Your task to perform on an android device: open the mobile data screen to see how much data has been used Image 0: 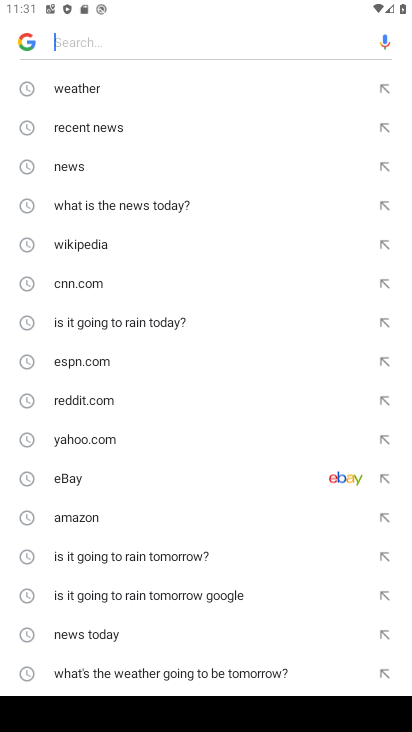
Step 0: press home button
Your task to perform on an android device: open the mobile data screen to see how much data has been used Image 1: 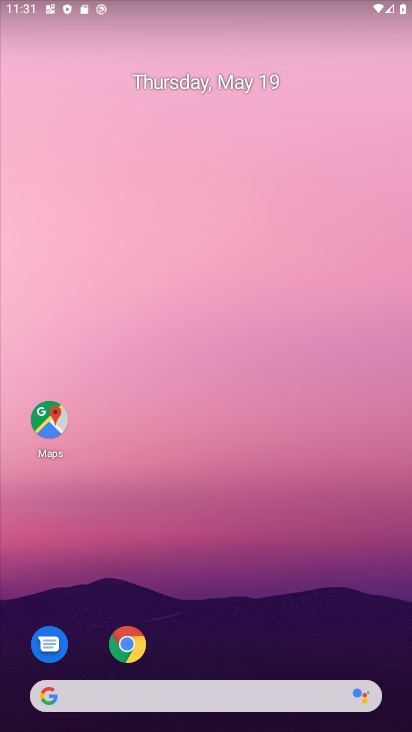
Step 1: drag from (209, 665) to (220, 2)
Your task to perform on an android device: open the mobile data screen to see how much data has been used Image 2: 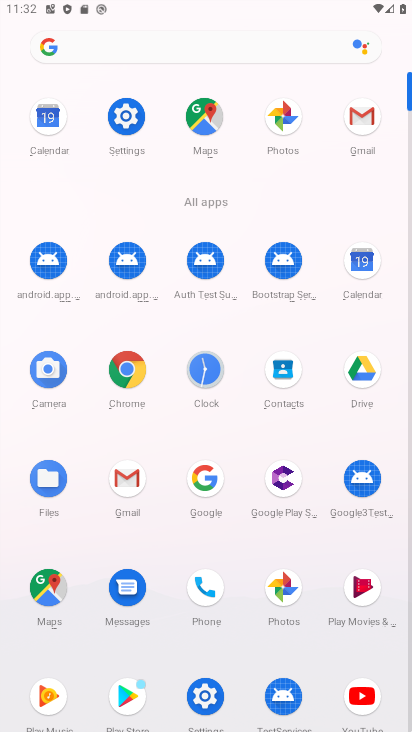
Step 2: click (197, 698)
Your task to perform on an android device: open the mobile data screen to see how much data has been used Image 3: 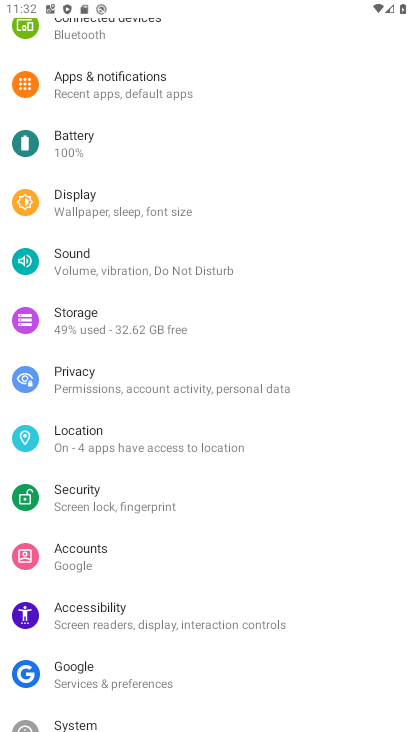
Step 3: drag from (136, 147) to (175, 495)
Your task to perform on an android device: open the mobile data screen to see how much data has been used Image 4: 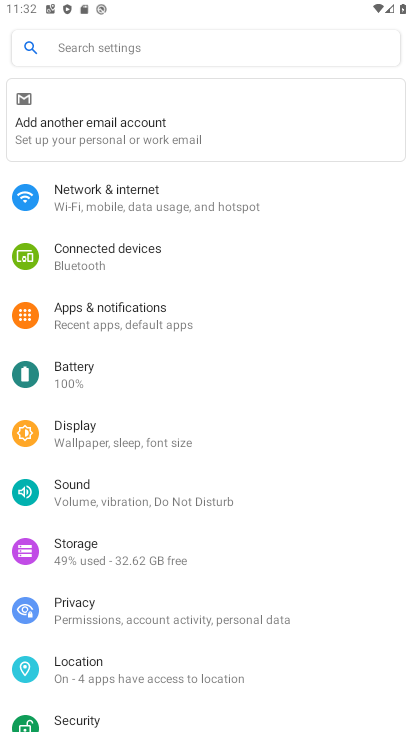
Step 4: click (106, 210)
Your task to perform on an android device: open the mobile data screen to see how much data has been used Image 5: 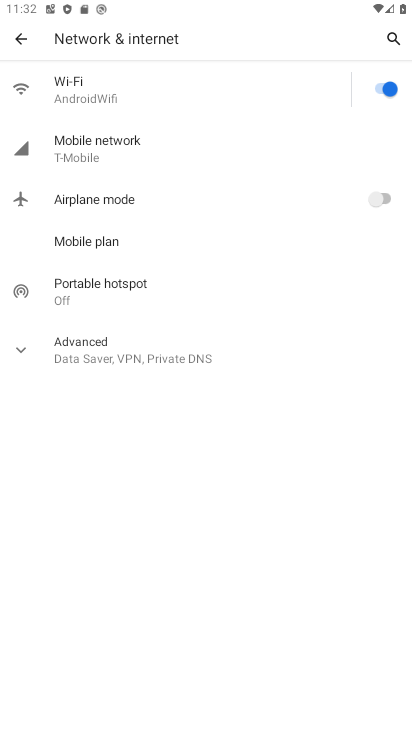
Step 5: click (102, 129)
Your task to perform on an android device: open the mobile data screen to see how much data has been used Image 6: 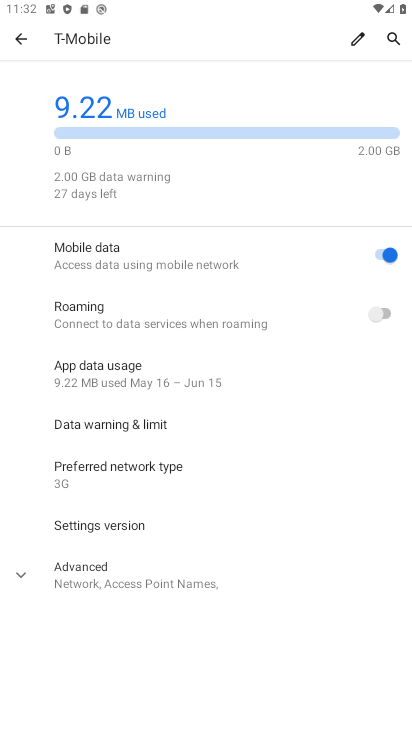
Step 6: task complete